Your task to perform on an android device: turn off notifications settings in the gmail app Image 0: 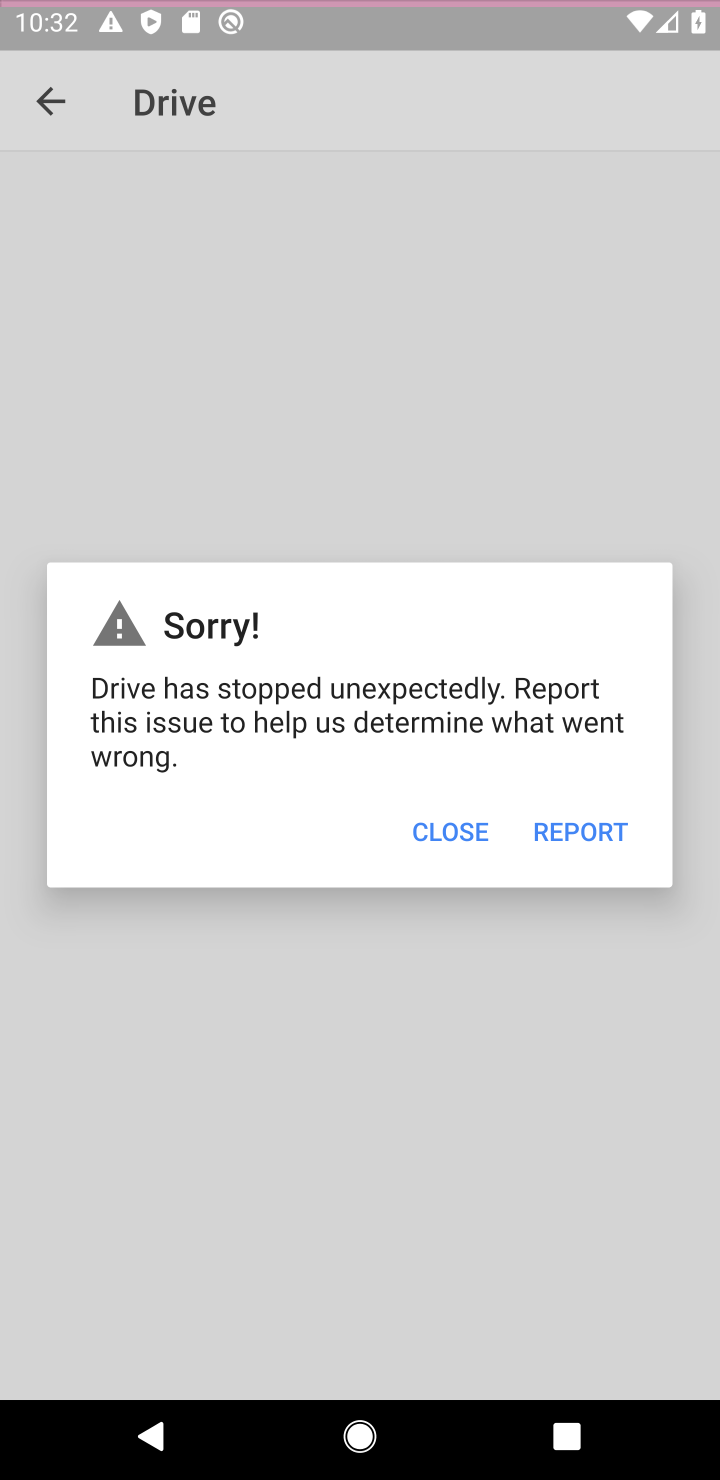
Step 0: press home button
Your task to perform on an android device: turn off notifications settings in the gmail app Image 1: 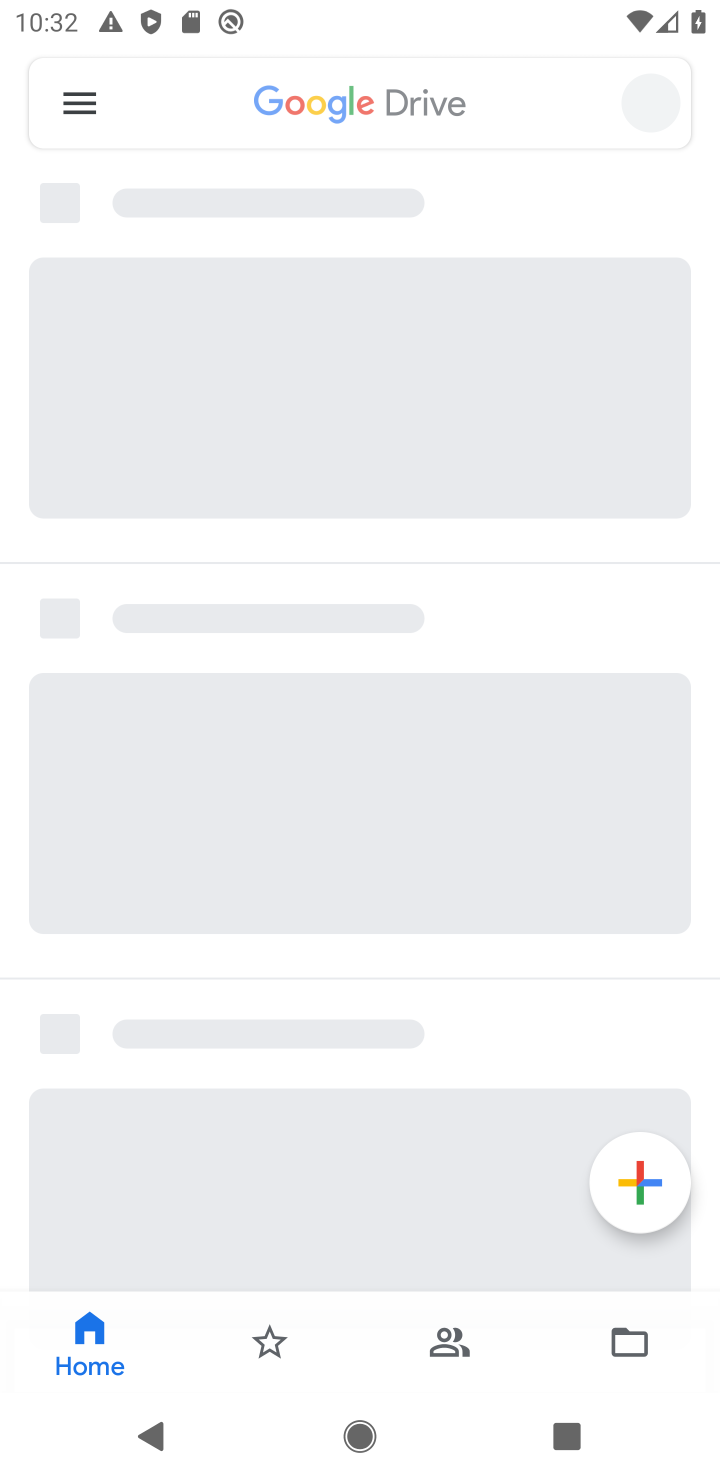
Step 1: press home button
Your task to perform on an android device: turn off notifications settings in the gmail app Image 2: 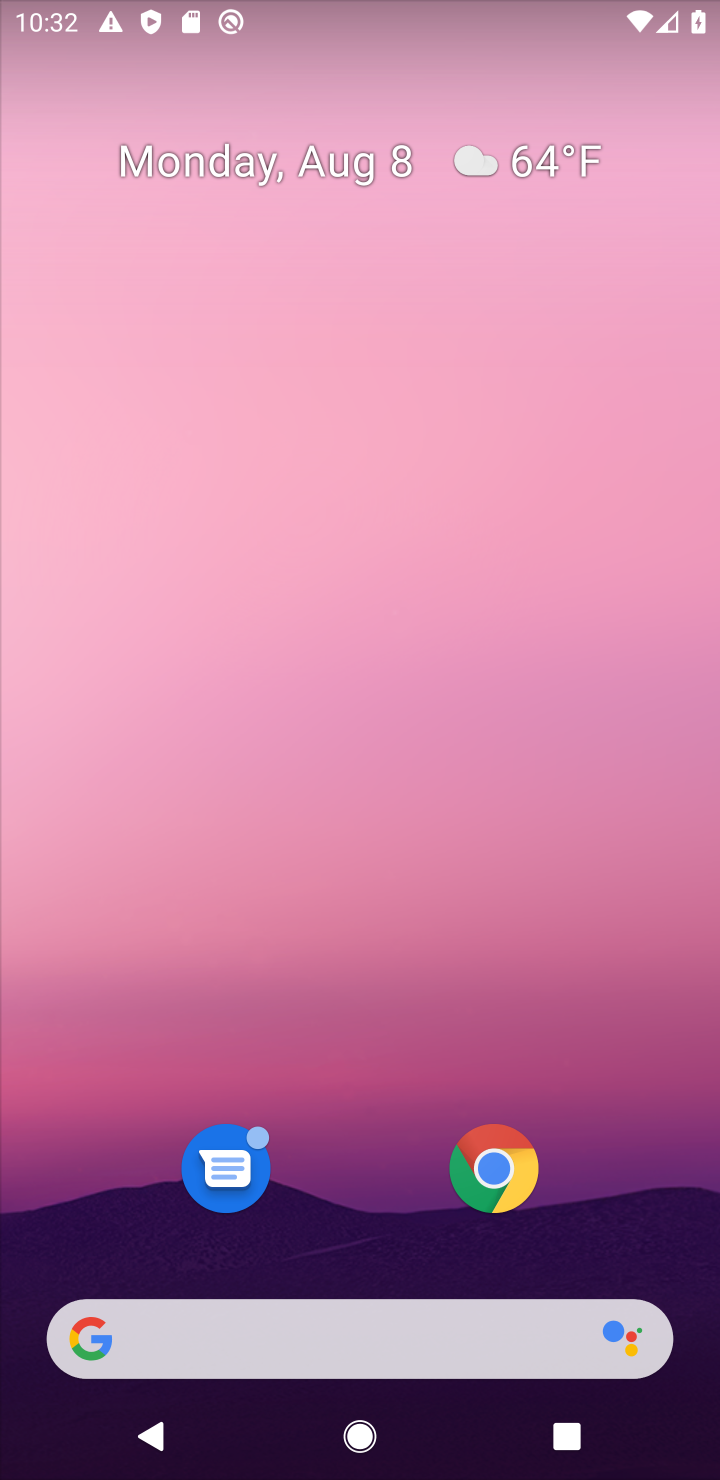
Step 2: drag from (273, 1096) to (482, 457)
Your task to perform on an android device: turn off notifications settings in the gmail app Image 3: 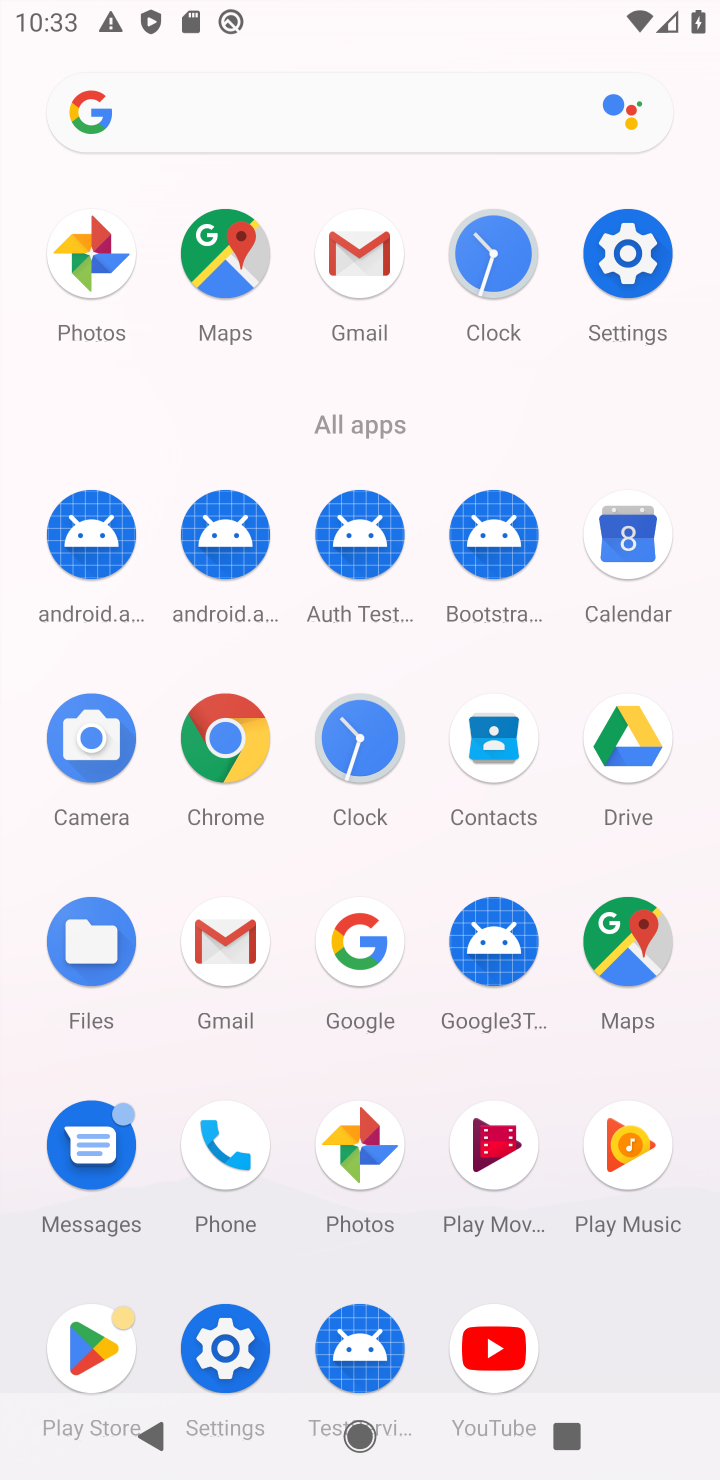
Step 3: click (626, 257)
Your task to perform on an android device: turn off notifications settings in the gmail app Image 4: 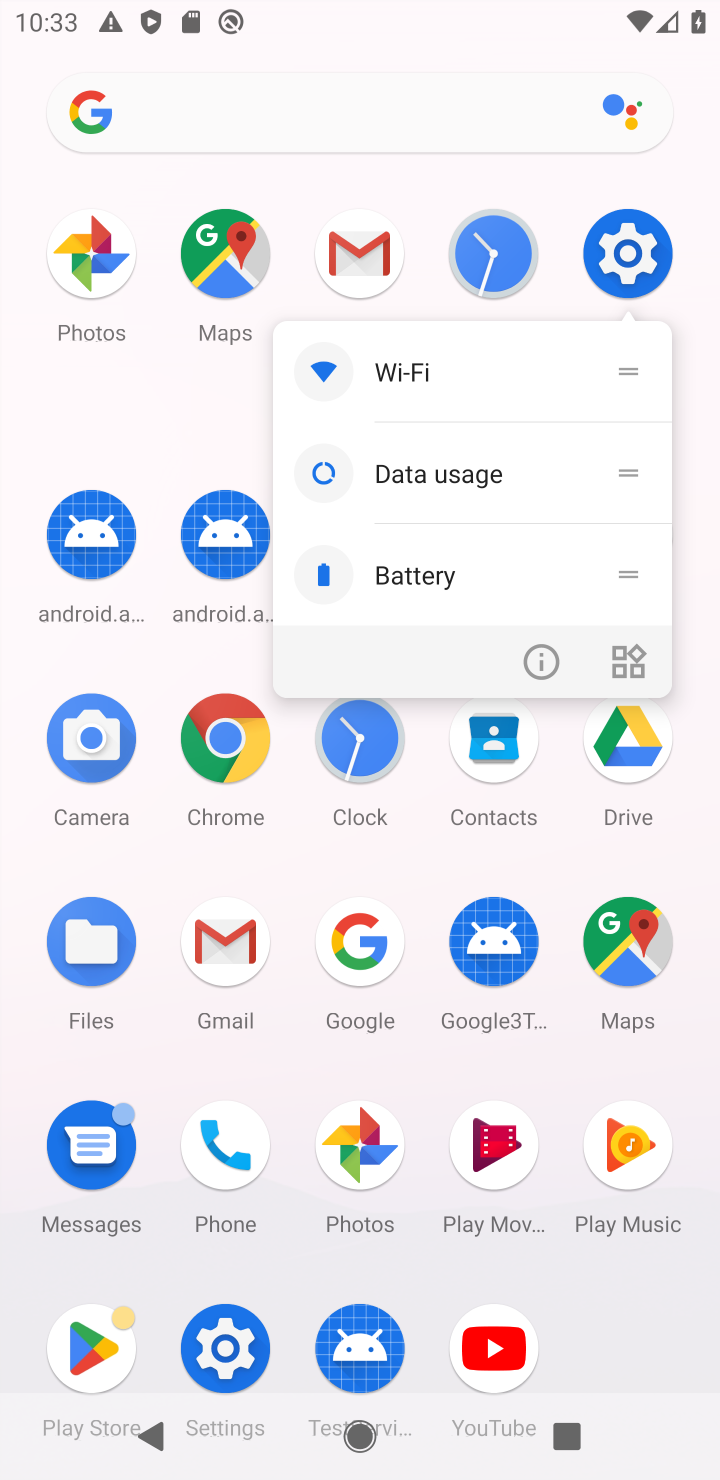
Step 4: click (627, 258)
Your task to perform on an android device: turn off notifications settings in the gmail app Image 5: 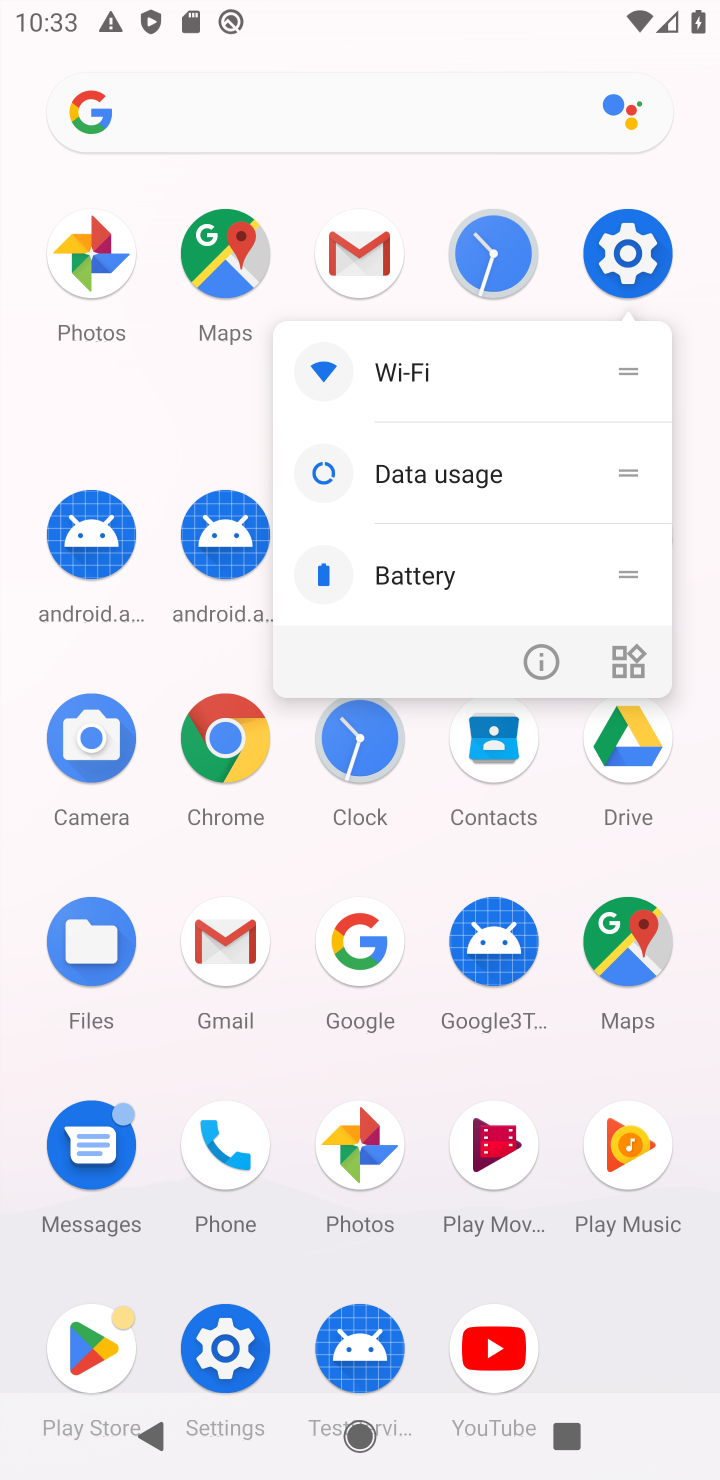
Step 5: click (635, 254)
Your task to perform on an android device: turn off notifications settings in the gmail app Image 6: 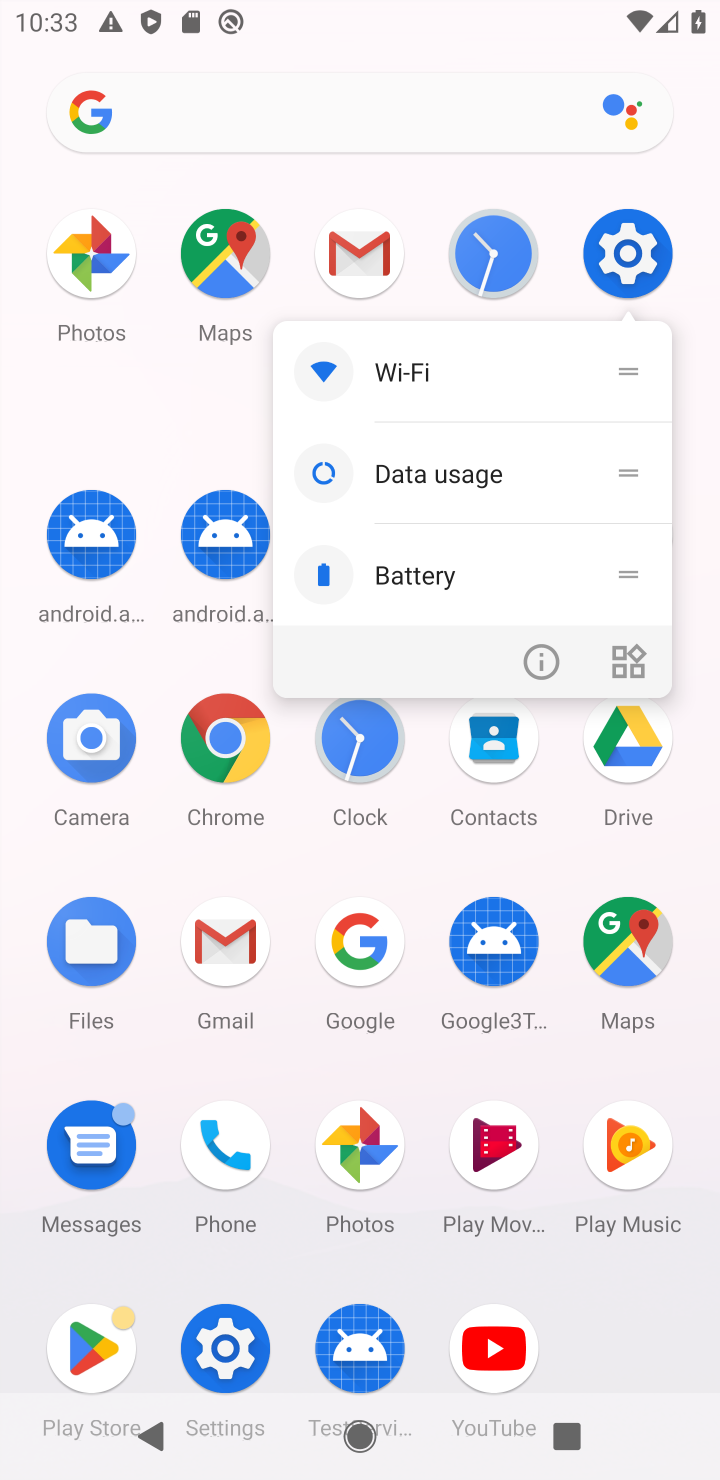
Step 6: click (611, 244)
Your task to perform on an android device: turn off notifications settings in the gmail app Image 7: 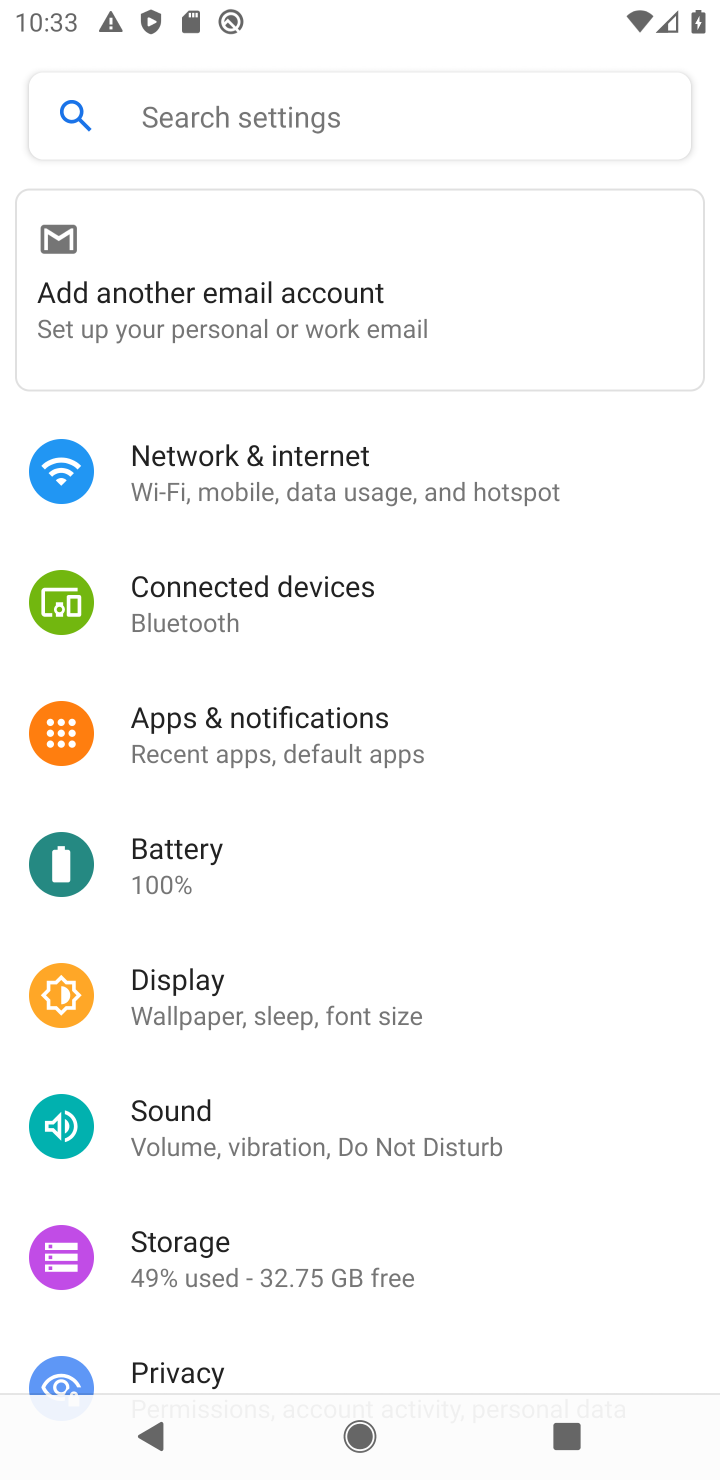
Step 7: click (310, 731)
Your task to perform on an android device: turn off notifications settings in the gmail app Image 8: 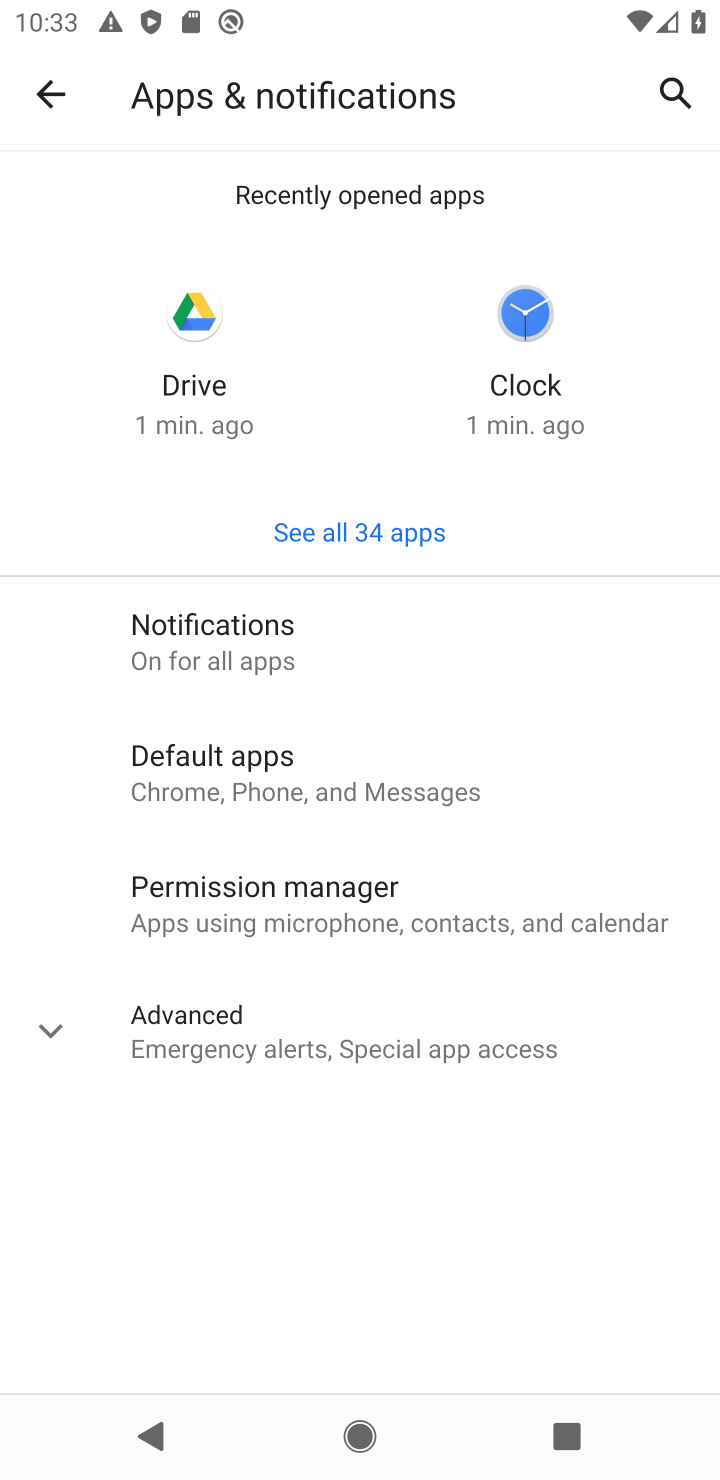
Step 8: click (218, 650)
Your task to perform on an android device: turn off notifications settings in the gmail app Image 9: 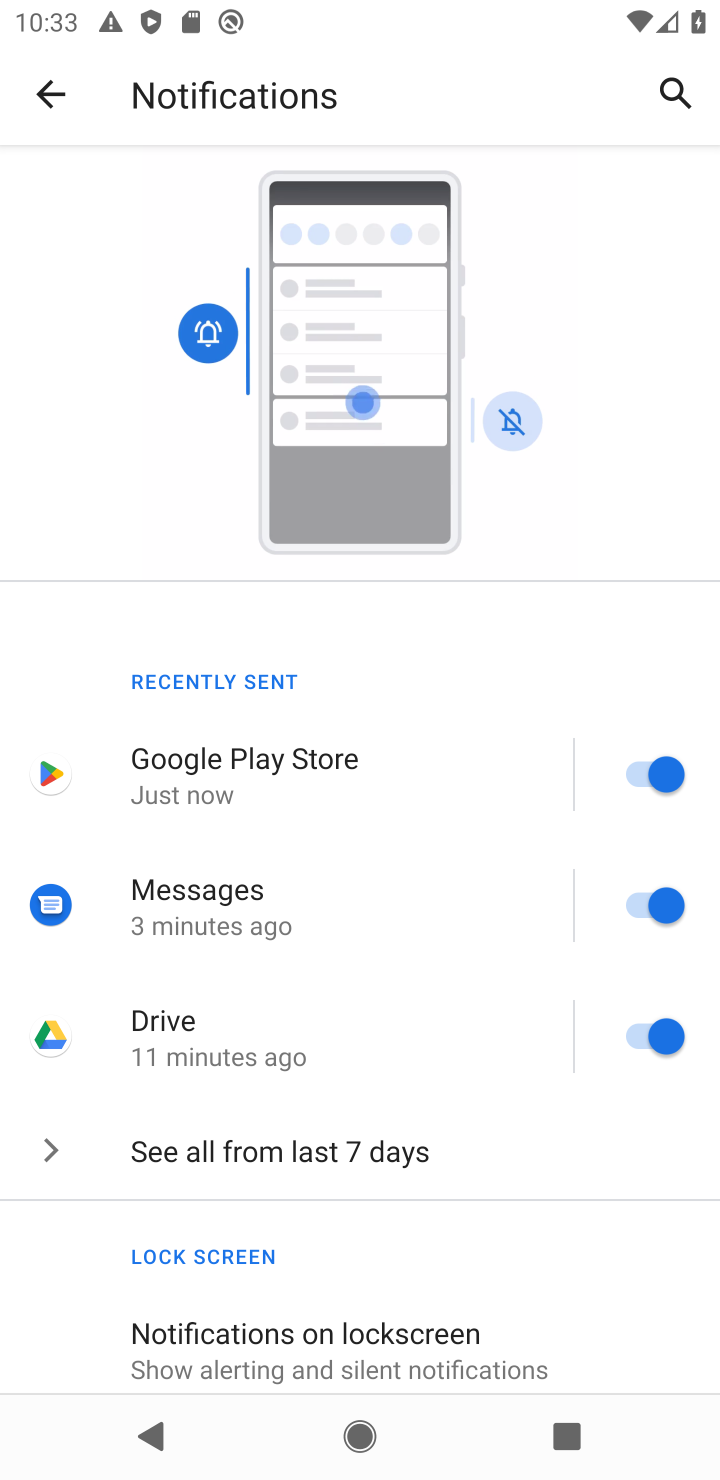
Step 9: click (294, 434)
Your task to perform on an android device: turn off notifications settings in the gmail app Image 10: 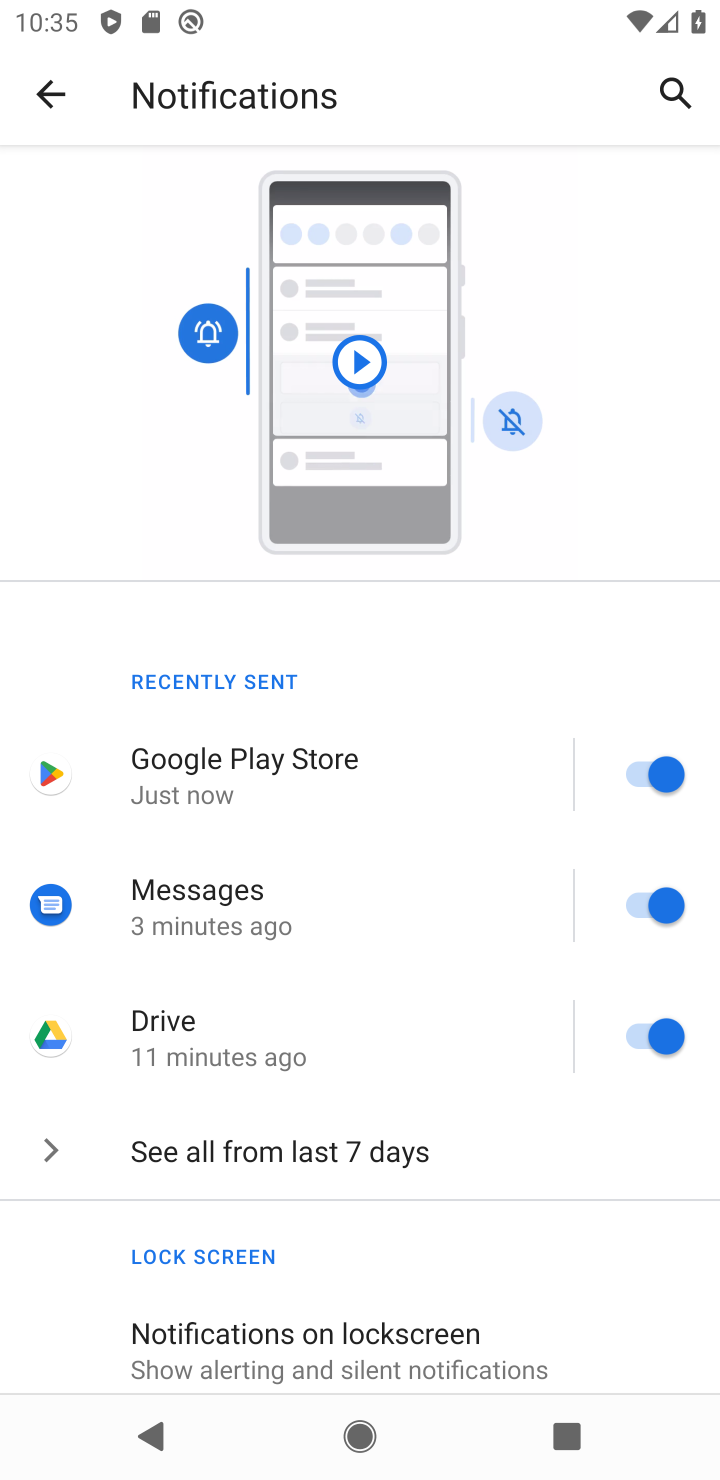
Step 10: task complete